Your task to perform on an android device: toggle notifications settings in the gmail app Image 0: 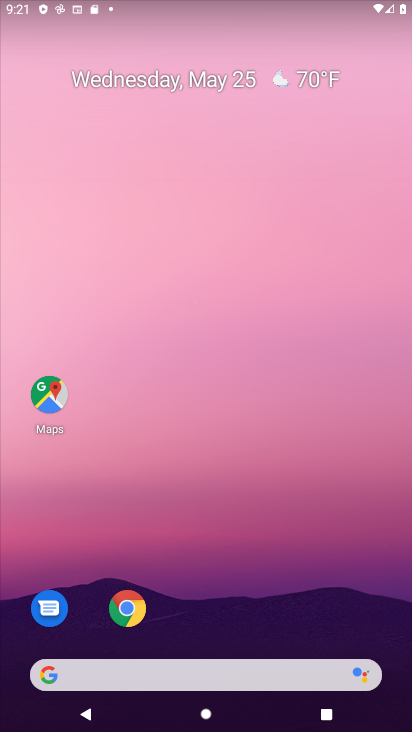
Step 0: drag from (254, 412) to (142, 19)
Your task to perform on an android device: toggle notifications settings in the gmail app Image 1: 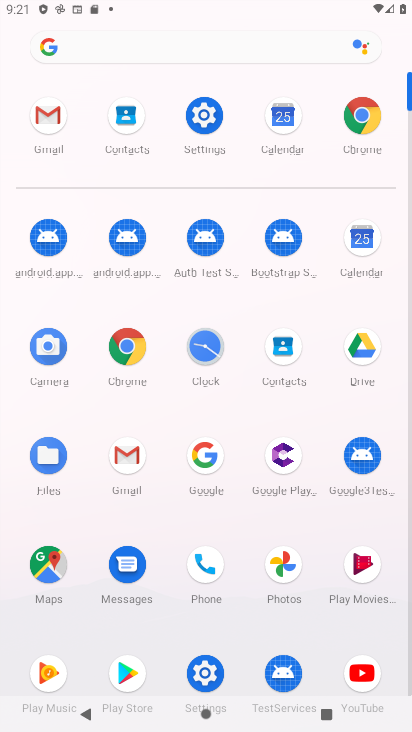
Step 1: click (131, 449)
Your task to perform on an android device: toggle notifications settings in the gmail app Image 2: 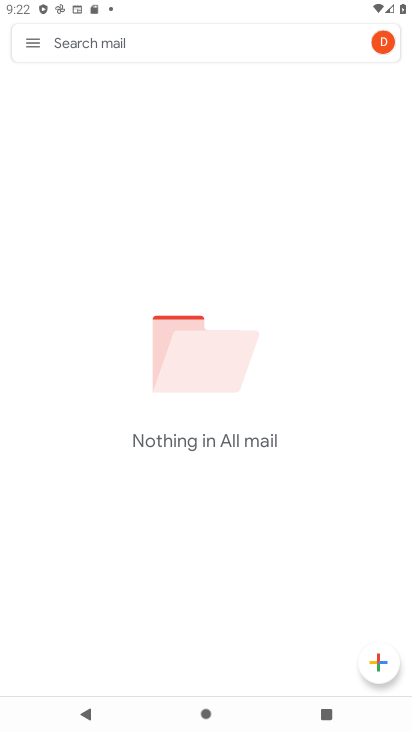
Step 2: click (22, 38)
Your task to perform on an android device: toggle notifications settings in the gmail app Image 3: 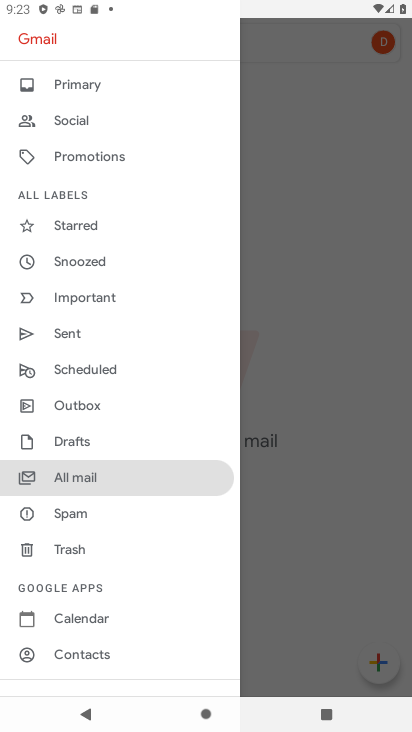
Step 3: drag from (109, 635) to (120, 320)
Your task to perform on an android device: toggle notifications settings in the gmail app Image 4: 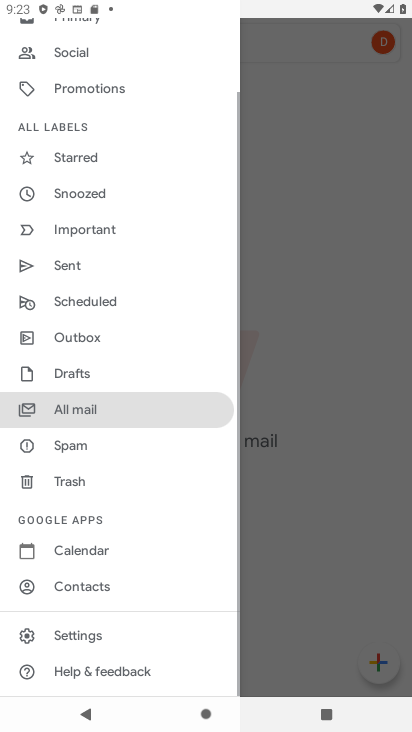
Step 4: click (92, 636)
Your task to perform on an android device: toggle notifications settings in the gmail app Image 5: 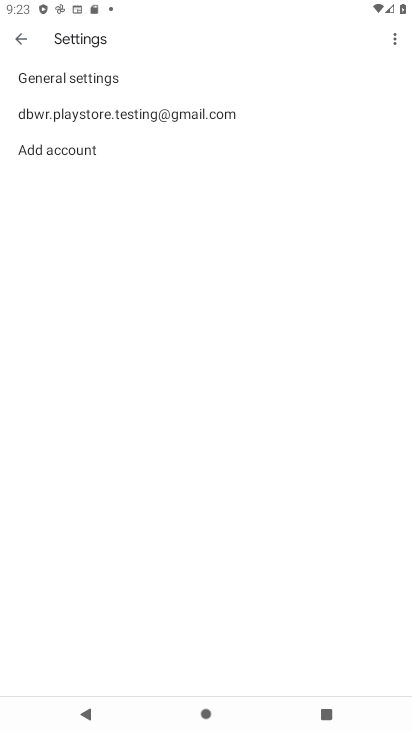
Step 5: click (95, 118)
Your task to perform on an android device: toggle notifications settings in the gmail app Image 6: 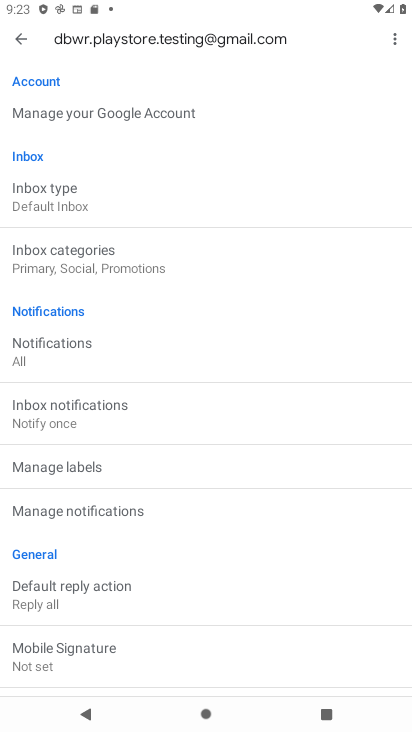
Step 6: click (81, 352)
Your task to perform on an android device: toggle notifications settings in the gmail app Image 7: 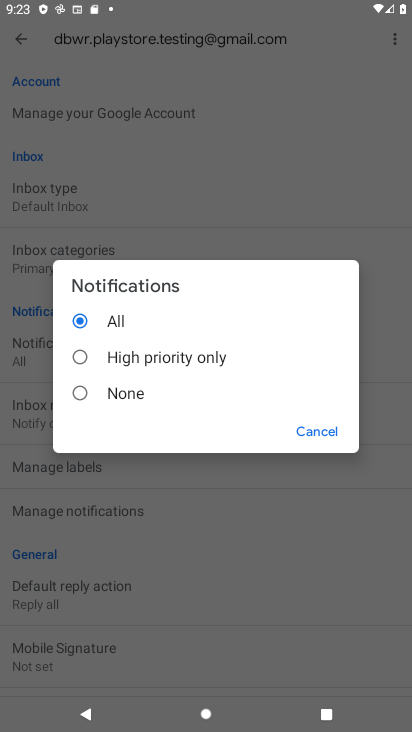
Step 7: click (131, 392)
Your task to perform on an android device: toggle notifications settings in the gmail app Image 8: 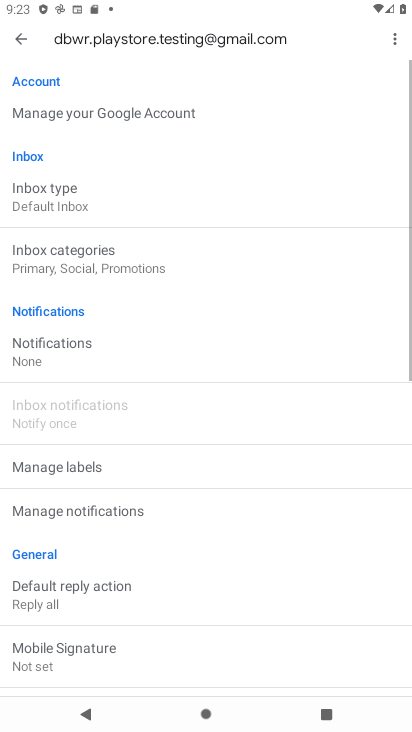
Step 8: task complete